Your task to perform on an android device: toggle priority inbox in the gmail app Image 0: 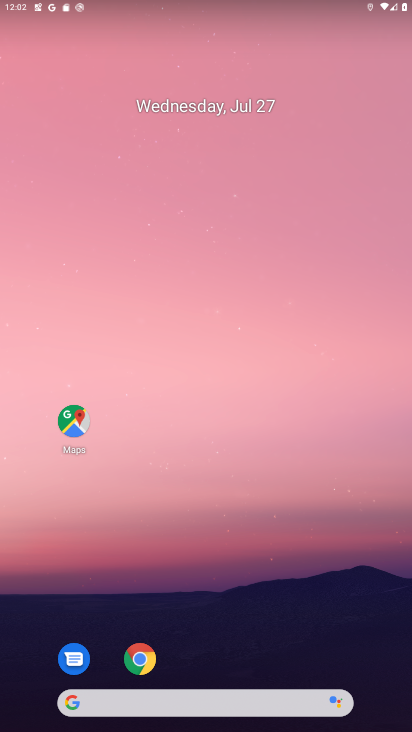
Step 0: drag from (237, 704) to (294, 19)
Your task to perform on an android device: toggle priority inbox in the gmail app Image 1: 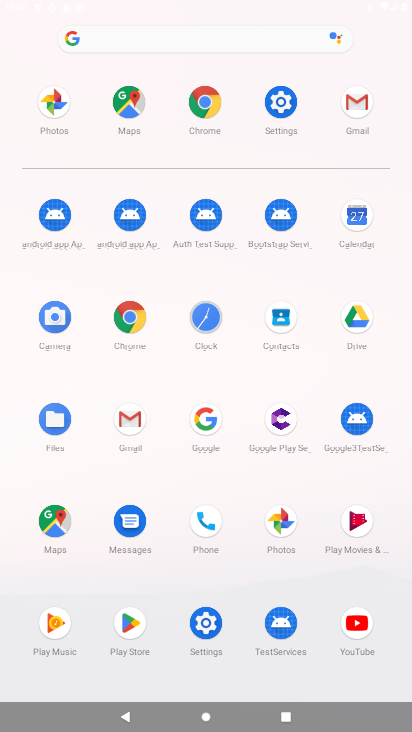
Step 1: click (133, 417)
Your task to perform on an android device: toggle priority inbox in the gmail app Image 2: 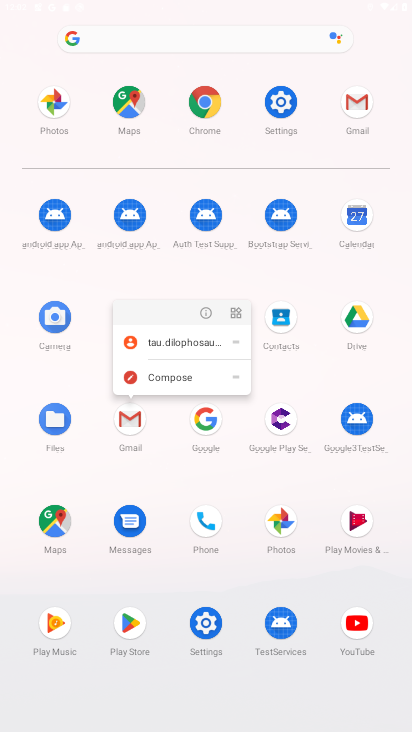
Step 2: click (133, 417)
Your task to perform on an android device: toggle priority inbox in the gmail app Image 3: 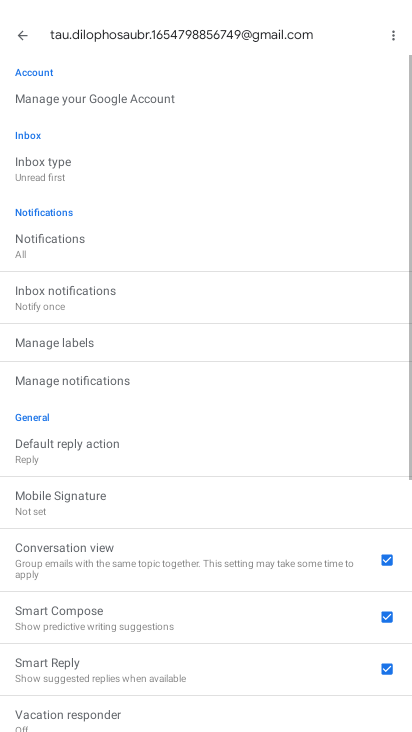
Step 3: press back button
Your task to perform on an android device: toggle priority inbox in the gmail app Image 4: 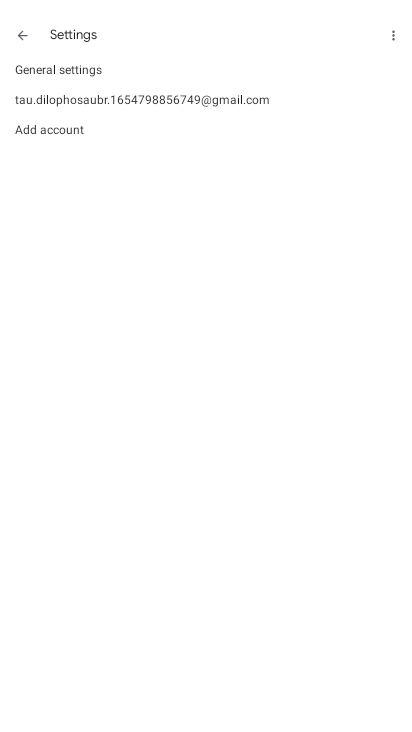
Step 4: click (193, 100)
Your task to perform on an android device: toggle priority inbox in the gmail app Image 5: 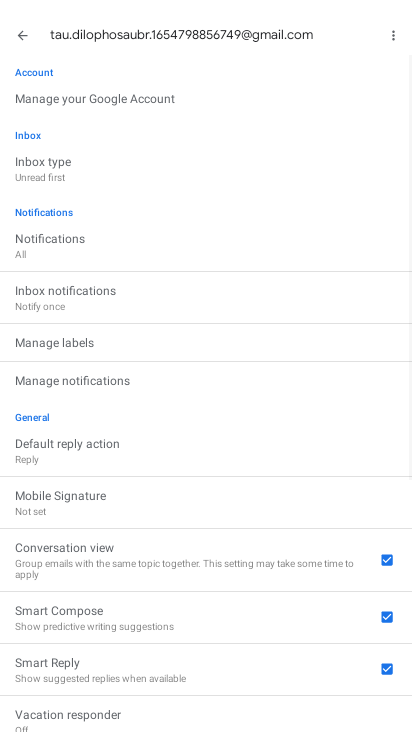
Step 5: click (43, 170)
Your task to perform on an android device: toggle priority inbox in the gmail app Image 6: 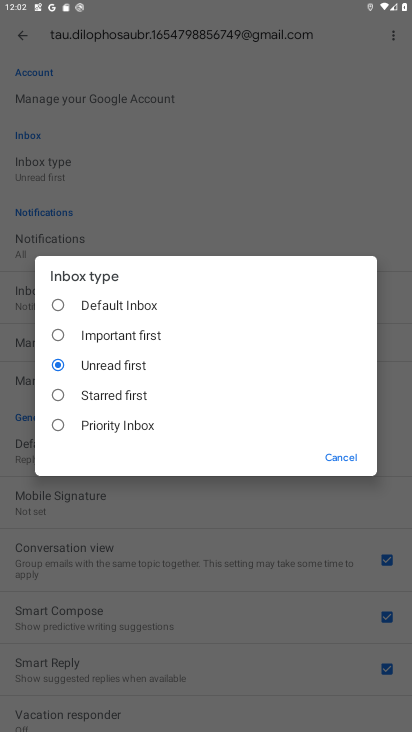
Step 6: click (62, 425)
Your task to perform on an android device: toggle priority inbox in the gmail app Image 7: 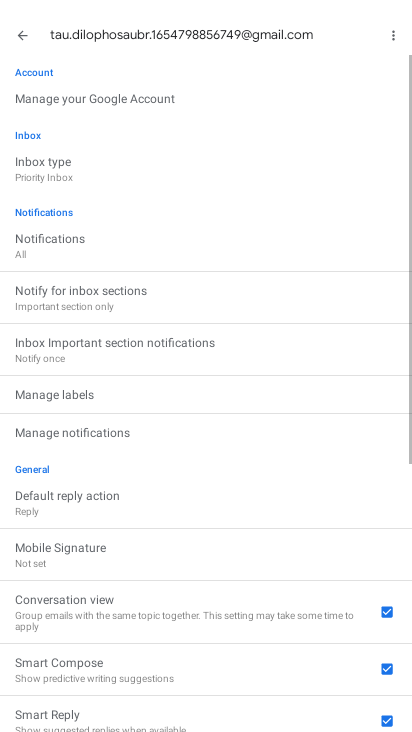
Step 7: task complete